Your task to perform on an android device: open sync settings in chrome Image 0: 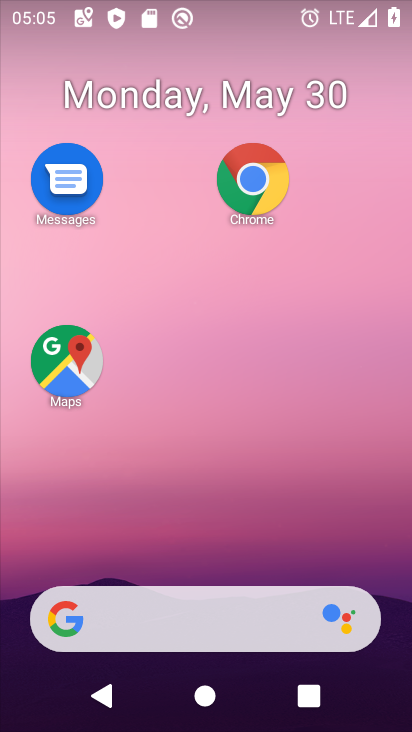
Step 0: click (260, 172)
Your task to perform on an android device: open sync settings in chrome Image 1: 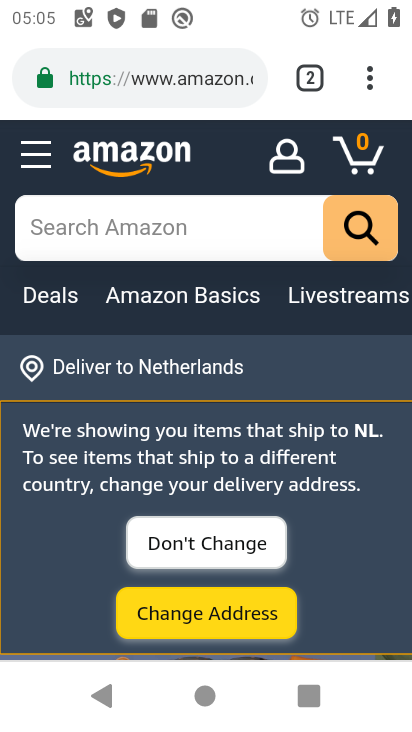
Step 1: click (364, 81)
Your task to perform on an android device: open sync settings in chrome Image 2: 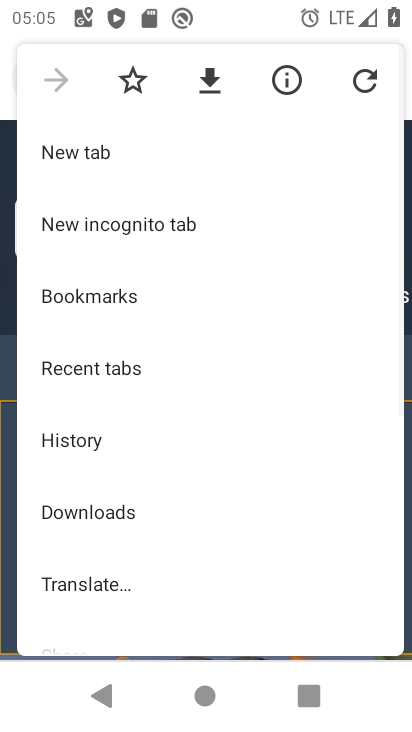
Step 2: drag from (138, 529) to (107, 228)
Your task to perform on an android device: open sync settings in chrome Image 3: 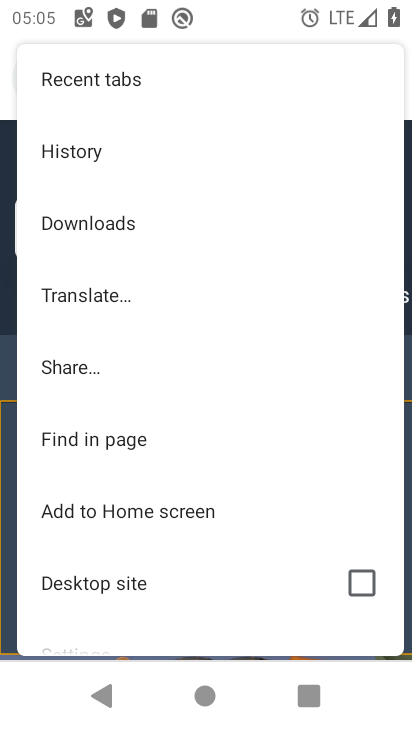
Step 3: drag from (118, 545) to (151, 116)
Your task to perform on an android device: open sync settings in chrome Image 4: 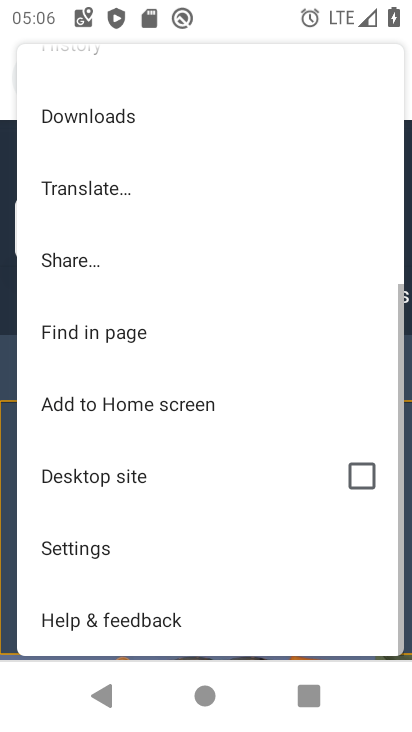
Step 4: click (104, 569)
Your task to perform on an android device: open sync settings in chrome Image 5: 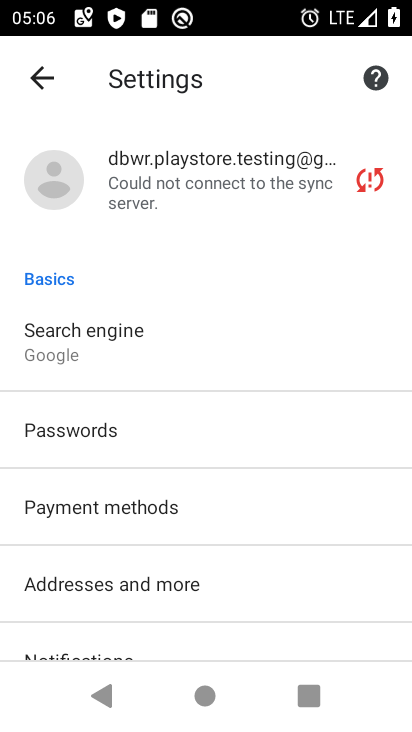
Step 5: click (162, 187)
Your task to perform on an android device: open sync settings in chrome Image 6: 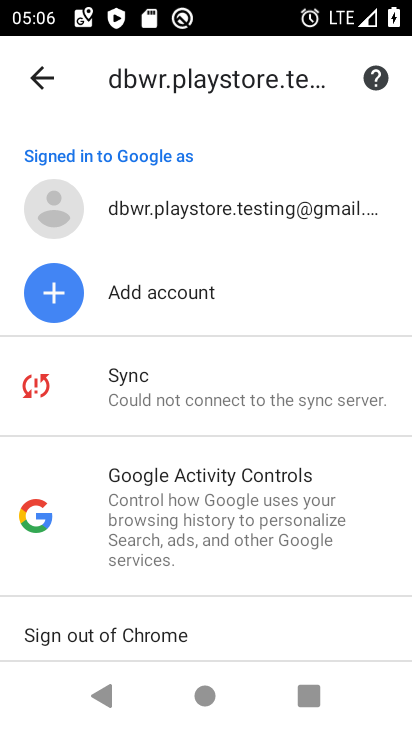
Step 6: click (133, 394)
Your task to perform on an android device: open sync settings in chrome Image 7: 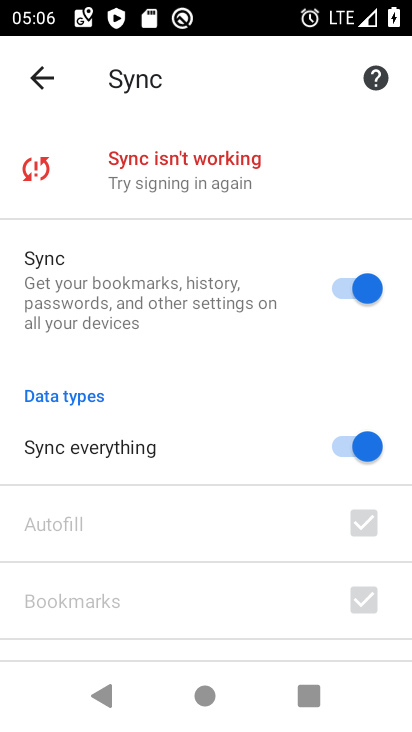
Step 7: task complete